Your task to perform on an android device: turn off location Image 0: 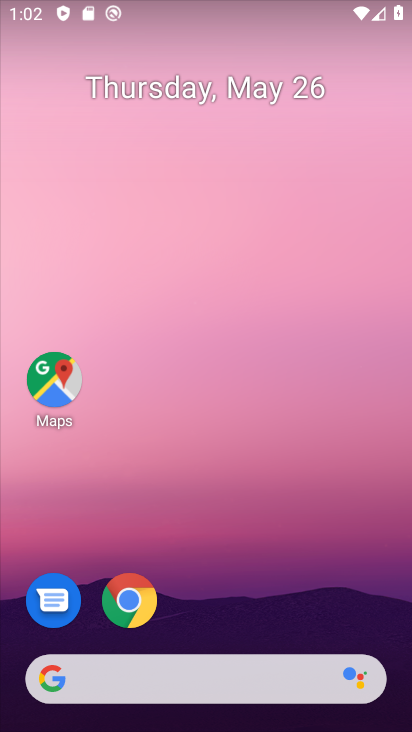
Step 0: drag from (266, 587) to (223, 84)
Your task to perform on an android device: turn off location Image 1: 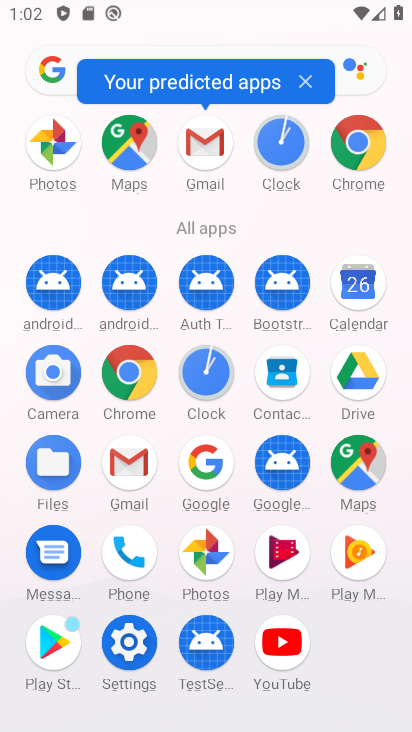
Step 1: click (128, 640)
Your task to perform on an android device: turn off location Image 2: 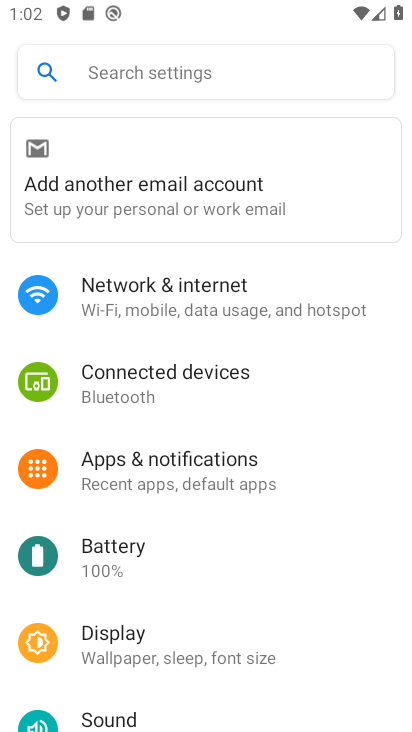
Step 2: drag from (171, 485) to (190, 424)
Your task to perform on an android device: turn off location Image 3: 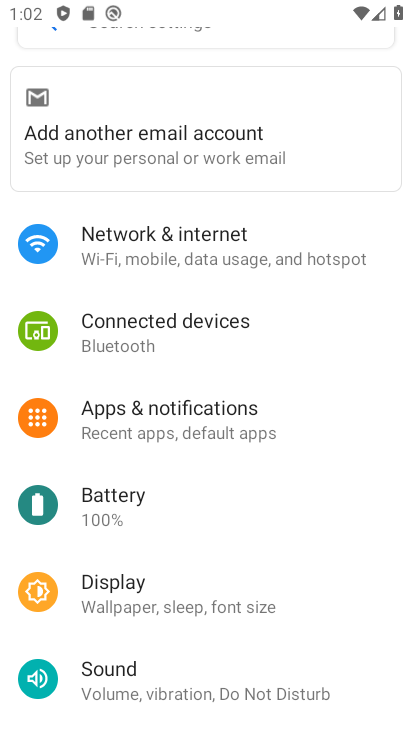
Step 3: drag from (161, 544) to (212, 462)
Your task to perform on an android device: turn off location Image 4: 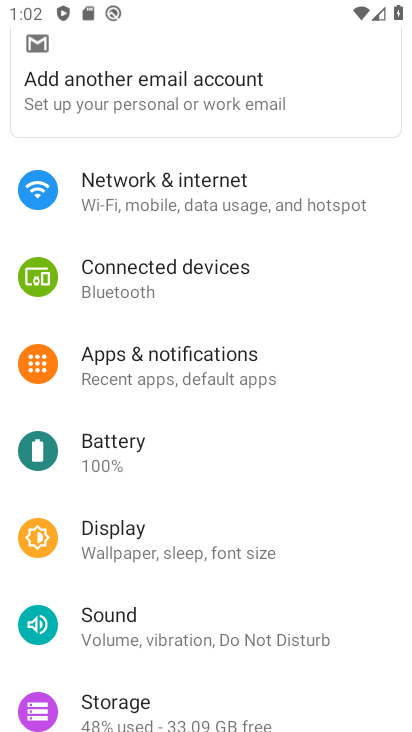
Step 4: drag from (151, 588) to (186, 484)
Your task to perform on an android device: turn off location Image 5: 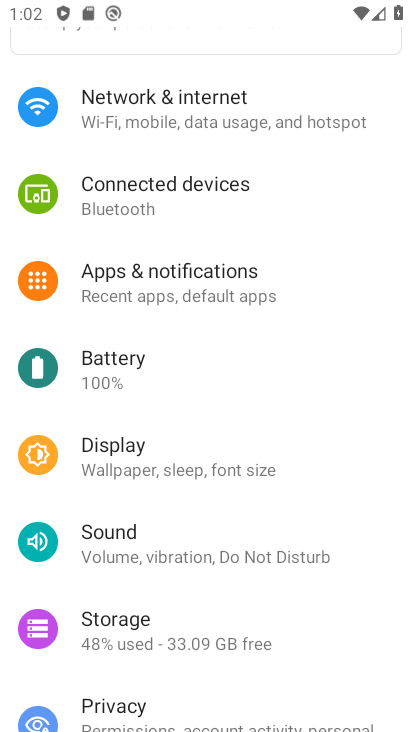
Step 5: drag from (136, 584) to (206, 479)
Your task to perform on an android device: turn off location Image 6: 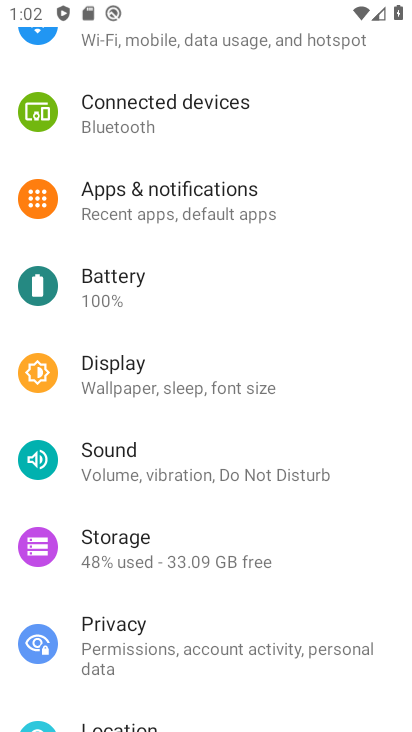
Step 6: drag from (103, 602) to (202, 487)
Your task to perform on an android device: turn off location Image 7: 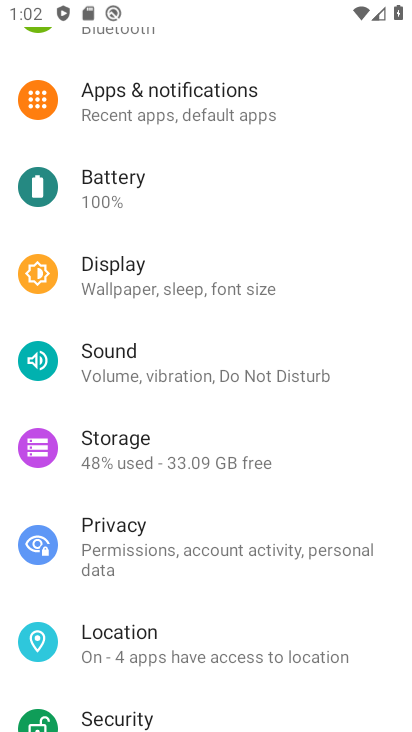
Step 7: click (130, 648)
Your task to perform on an android device: turn off location Image 8: 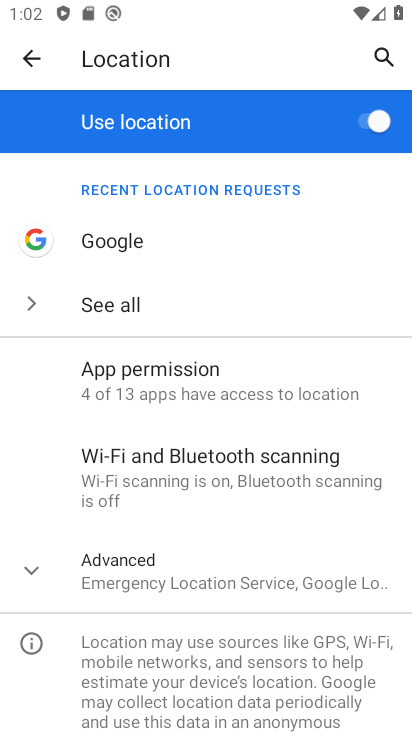
Step 8: click (367, 124)
Your task to perform on an android device: turn off location Image 9: 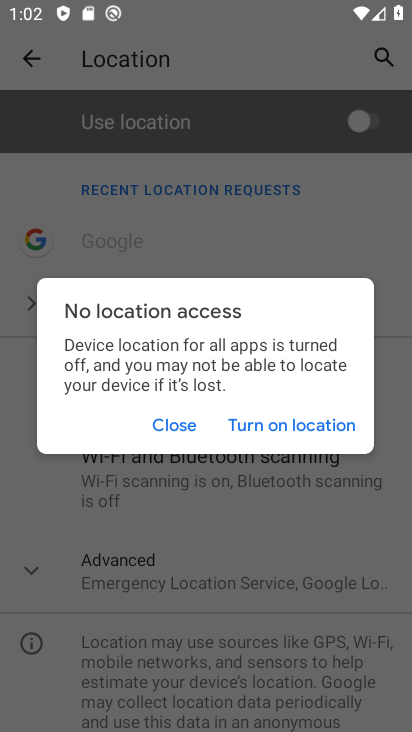
Step 9: click (180, 430)
Your task to perform on an android device: turn off location Image 10: 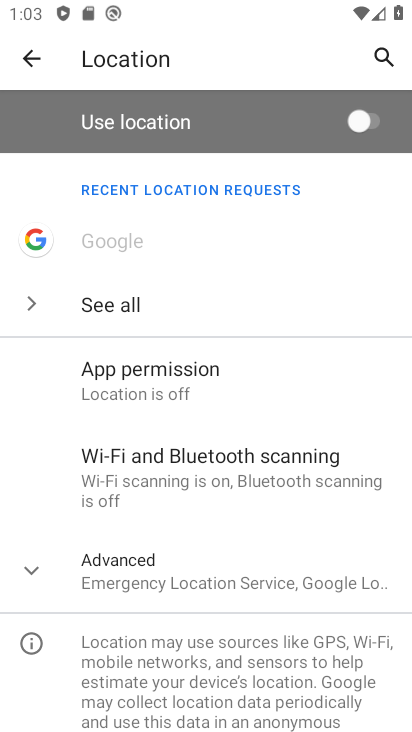
Step 10: task complete